Your task to perform on an android device: What's the weather today? Image 0: 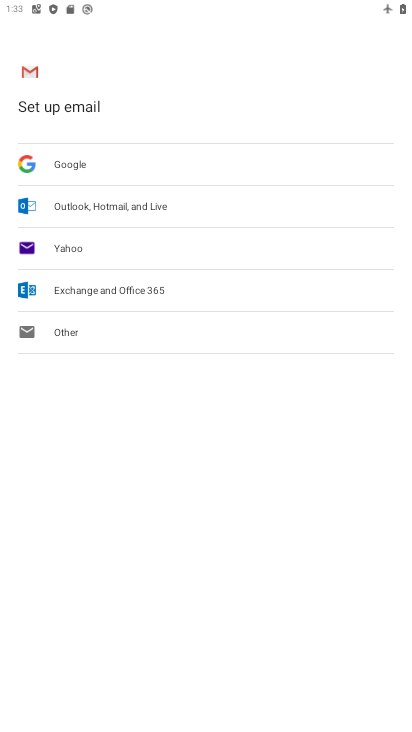
Step 0: press home button
Your task to perform on an android device: What's the weather today? Image 1: 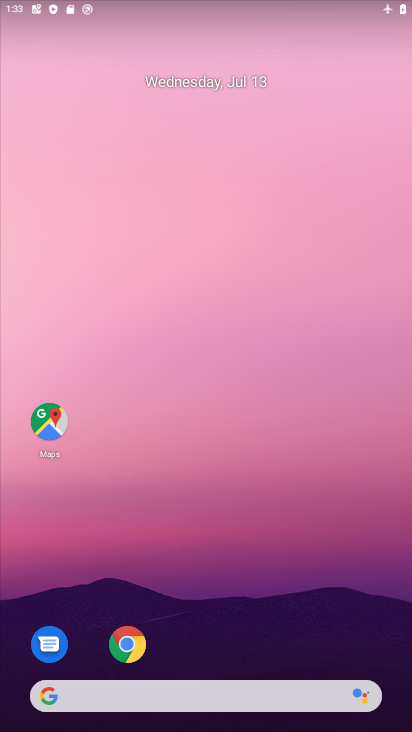
Step 1: drag from (316, 640) to (258, 141)
Your task to perform on an android device: What's the weather today? Image 2: 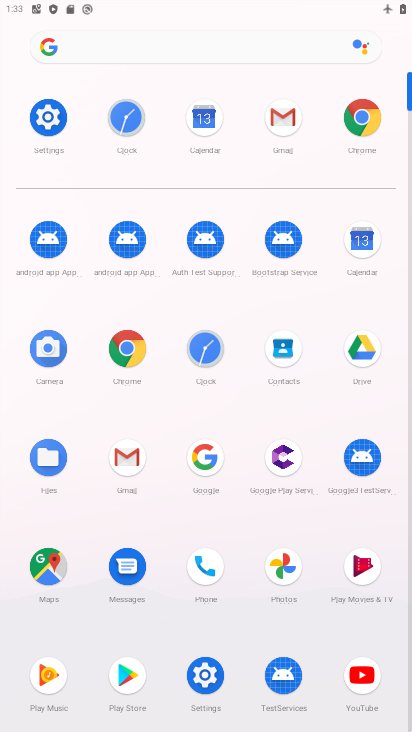
Step 2: click (363, 118)
Your task to perform on an android device: What's the weather today? Image 3: 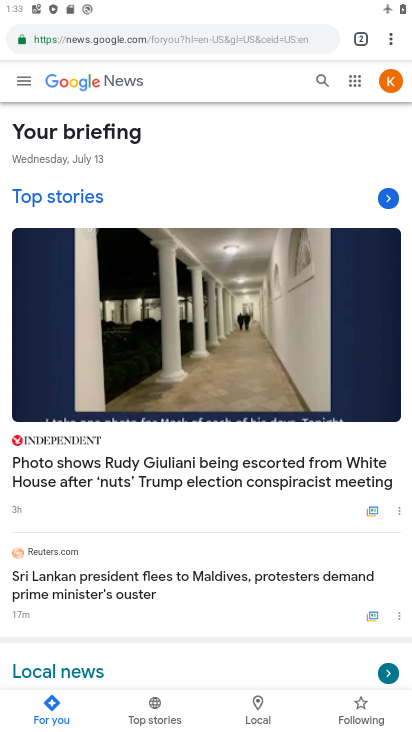
Step 3: click (181, 38)
Your task to perform on an android device: What's the weather today? Image 4: 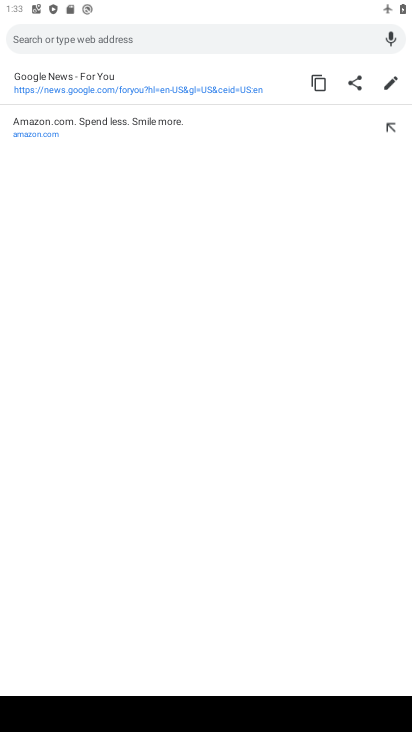
Step 4: type "weather"
Your task to perform on an android device: What's the weather today? Image 5: 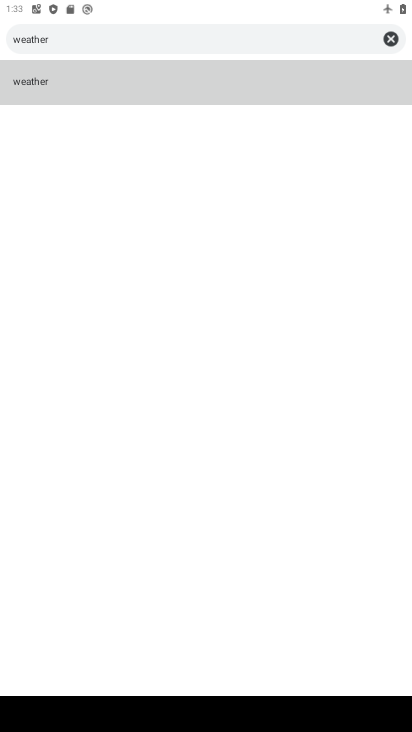
Step 5: click (30, 84)
Your task to perform on an android device: What's the weather today? Image 6: 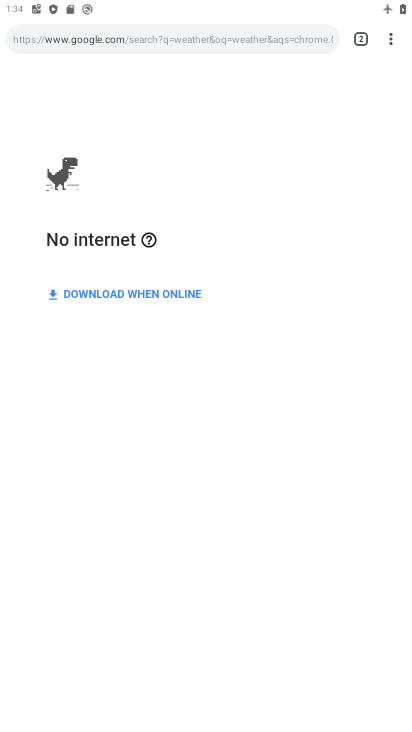
Step 6: task complete